Your task to perform on an android device: Is it going to rain tomorrow? Image 0: 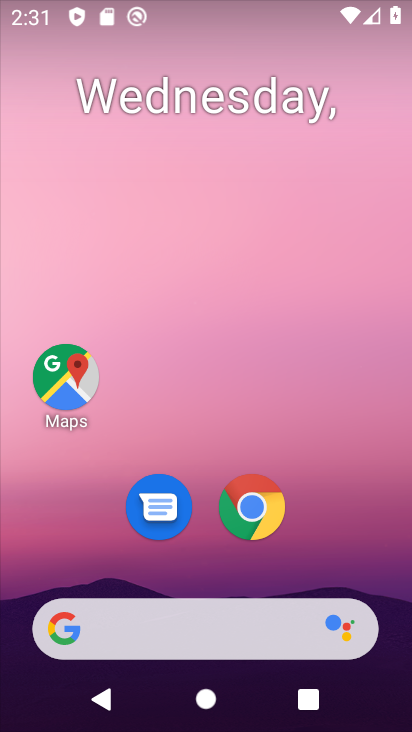
Step 0: drag from (2, 132) to (319, 182)
Your task to perform on an android device: Is it going to rain tomorrow? Image 1: 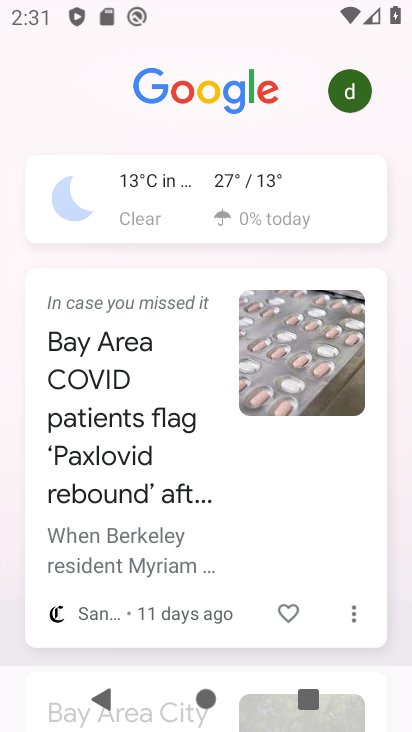
Step 1: click (199, 171)
Your task to perform on an android device: Is it going to rain tomorrow? Image 2: 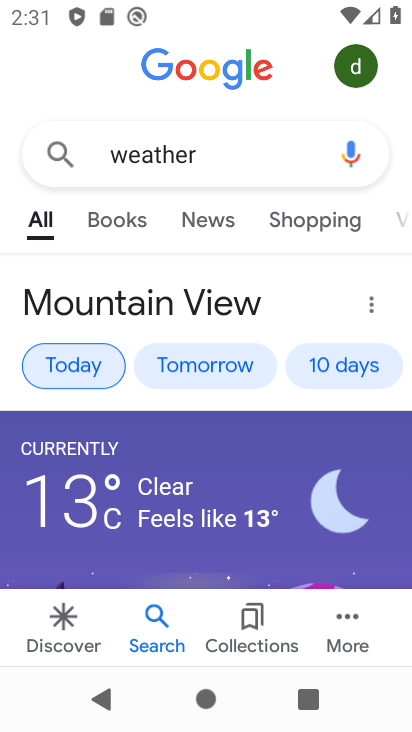
Step 2: task complete